Your task to perform on an android device: turn off location history Image 0: 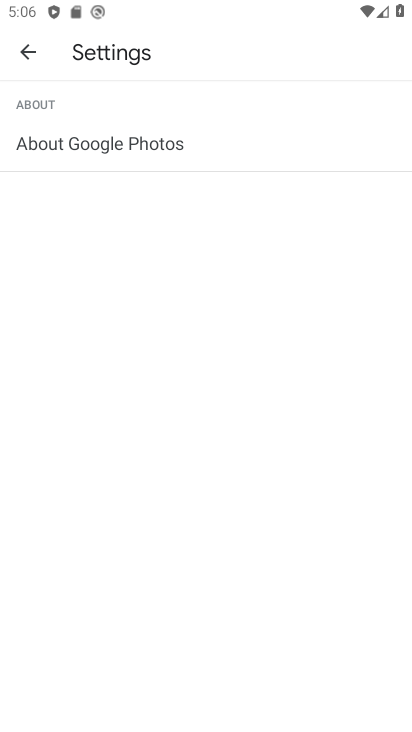
Step 0: press back button
Your task to perform on an android device: turn off location history Image 1: 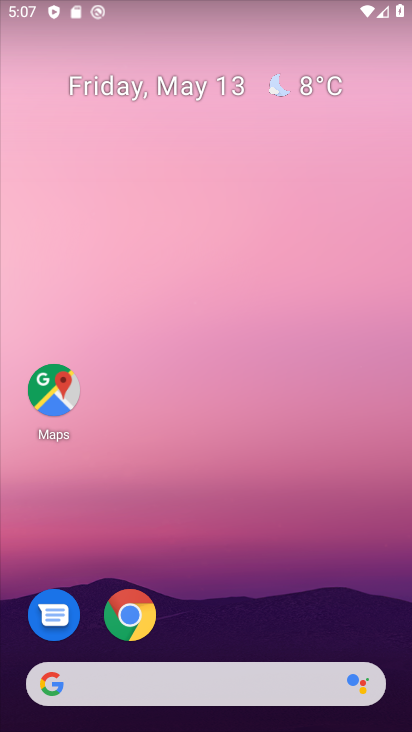
Step 1: drag from (278, 528) to (271, 12)
Your task to perform on an android device: turn off location history Image 2: 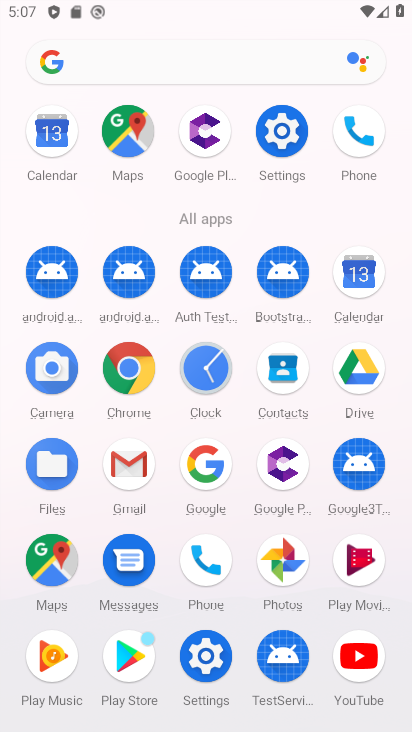
Step 2: drag from (8, 626) to (0, 287)
Your task to perform on an android device: turn off location history Image 3: 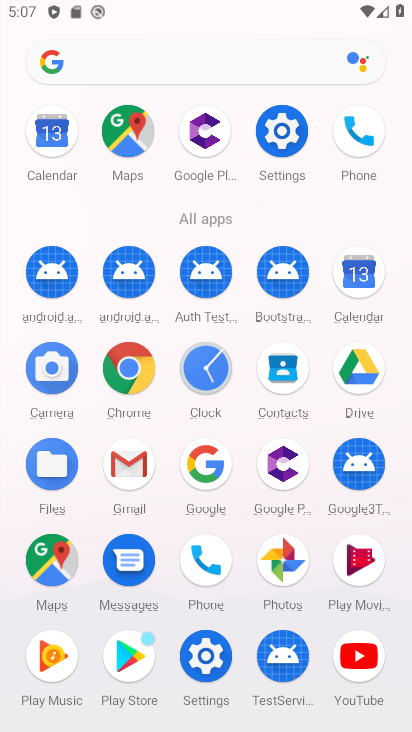
Step 3: click (206, 657)
Your task to perform on an android device: turn off location history Image 4: 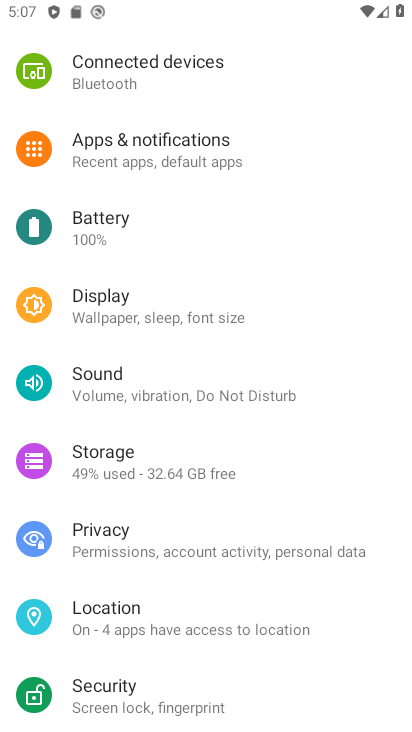
Step 4: click (173, 613)
Your task to perform on an android device: turn off location history Image 5: 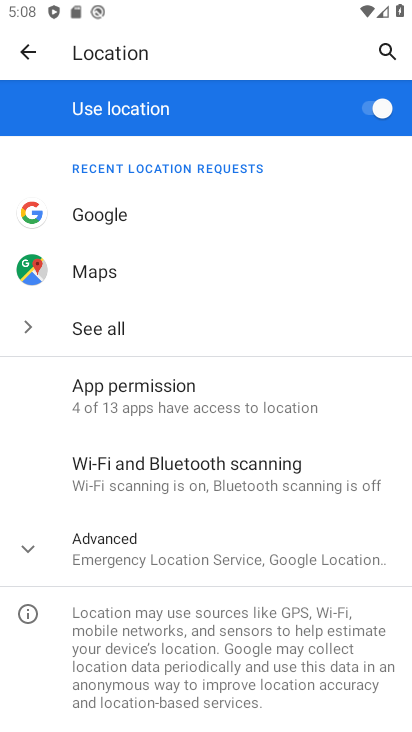
Step 5: click (98, 549)
Your task to perform on an android device: turn off location history Image 6: 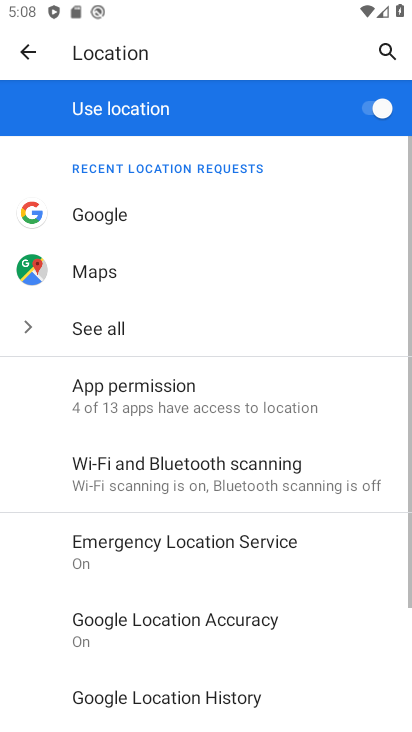
Step 6: drag from (253, 664) to (262, 288)
Your task to perform on an android device: turn off location history Image 7: 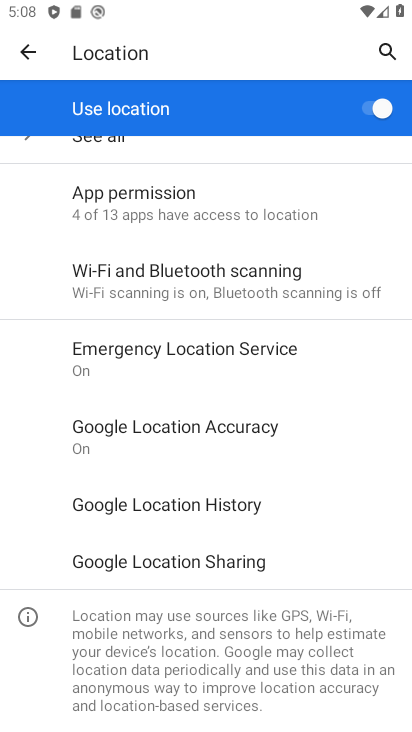
Step 7: click (186, 503)
Your task to perform on an android device: turn off location history Image 8: 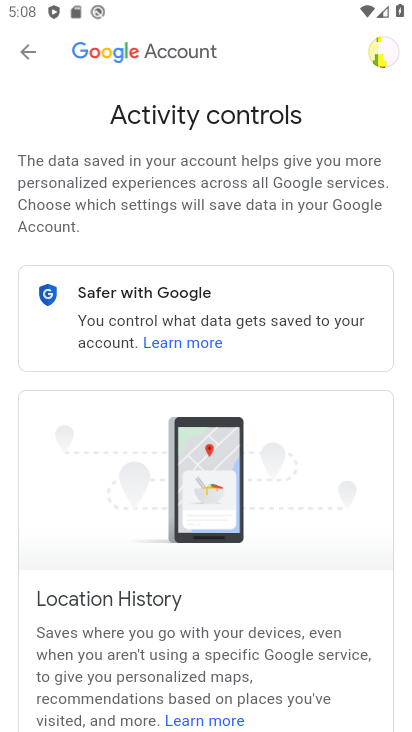
Step 8: drag from (245, 537) to (234, 105)
Your task to perform on an android device: turn off location history Image 9: 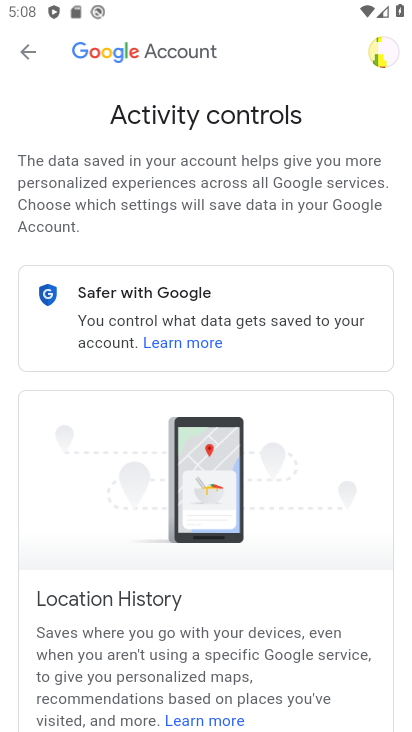
Step 9: drag from (292, 562) to (288, 105)
Your task to perform on an android device: turn off location history Image 10: 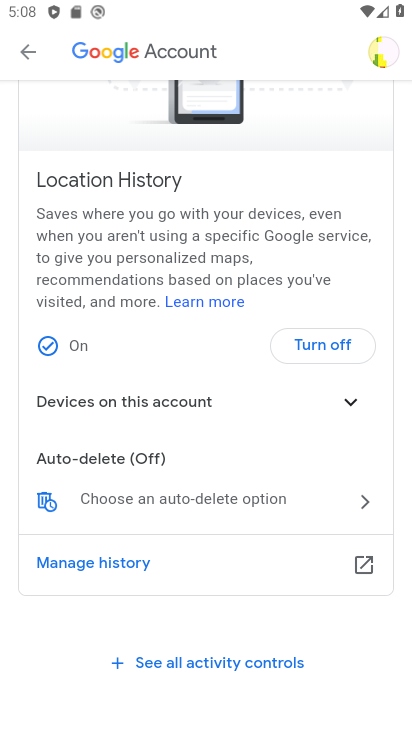
Step 10: click (315, 344)
Your task to perform on an android device: turn off location history Image 11: 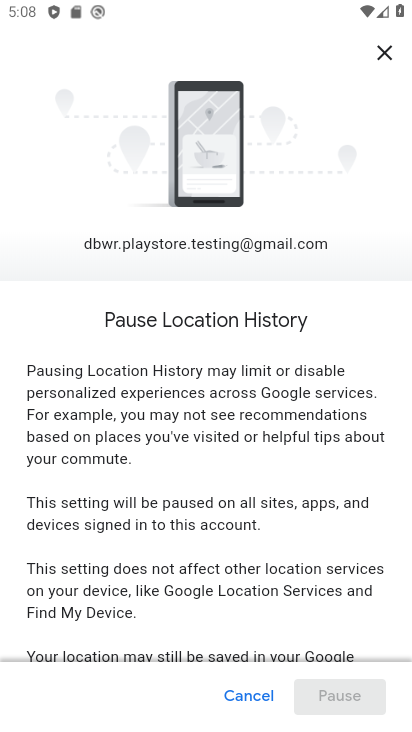
Step 11: drag from (290, 593) to (272, 117)
Your task to perform on an android device: turn off location history Image 12: 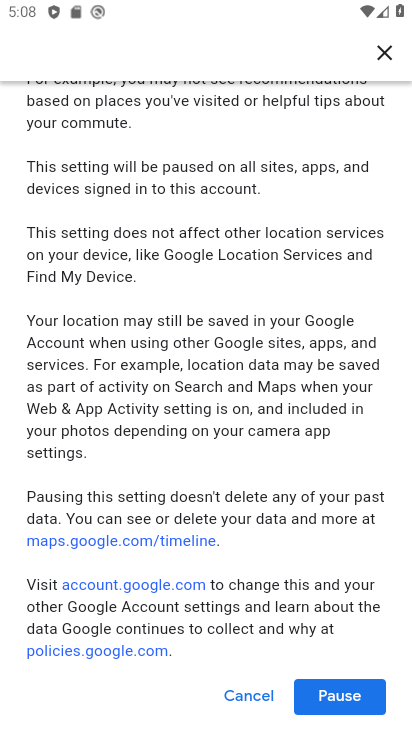
Step 12: click (333, 690)
Your task to perform on an android device: turn off location history Image 13: 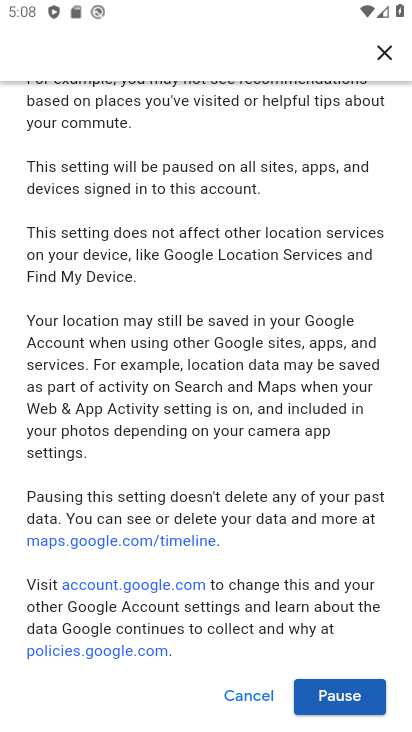
Step 13: click (346, 697)
Your task to perform on an android device: turn off location history Image 14: 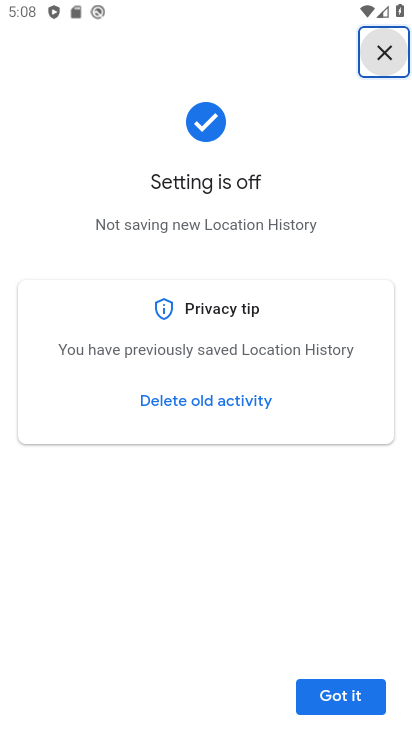
Step 14: task complete